Your task to perform on an android device: open chrome privacy settings Image 0: 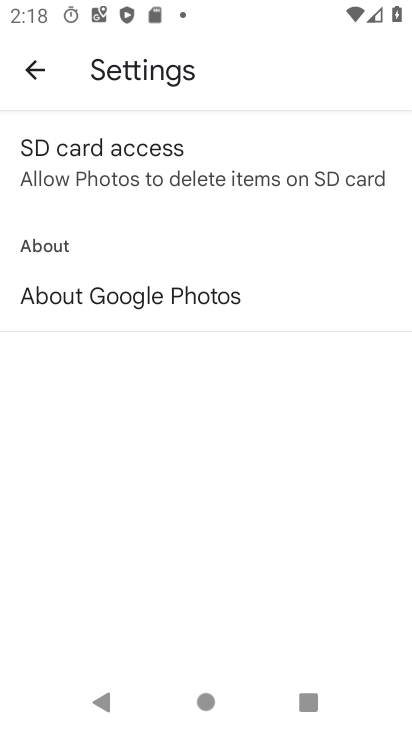
Step 0: press home button
Your task to perform on an android device: open chrome privacy settings Image 1: 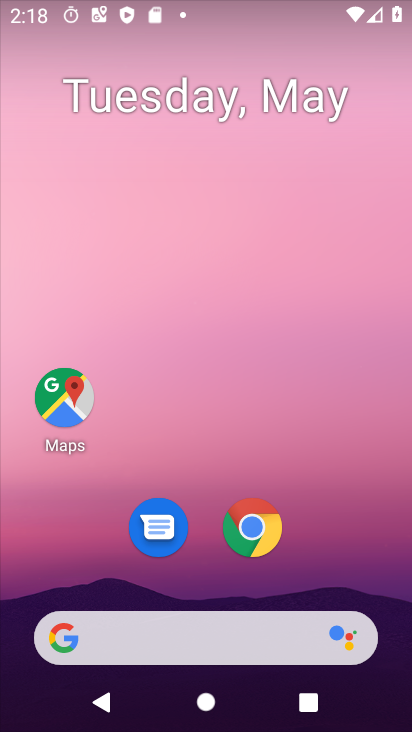
Step 1: drag from (252, 639) to (268, 259)
Your task to perform on an android device: open chrome privacy settings Image 2: 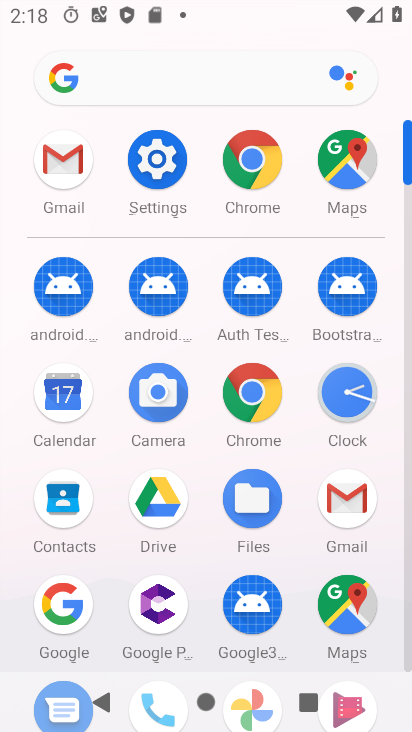
Step 2: click (152, 144)
Your task to perform on an android device: open chrome privacy settings Image 3: 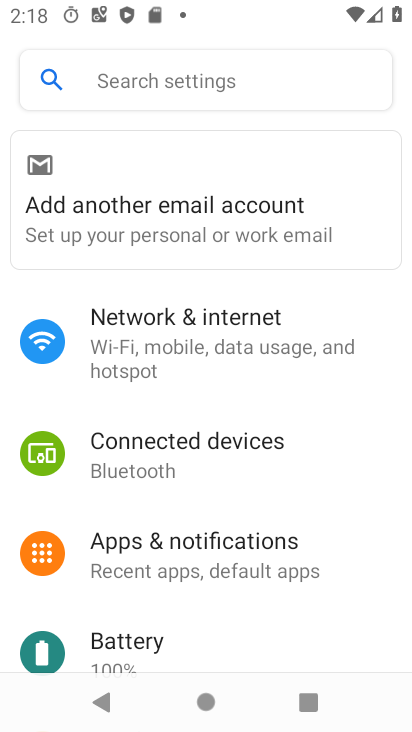
Step 3: drag from (176, 492) to (199, 283)
Your task to perform on an android device: open chrome privacy settings Image 4: 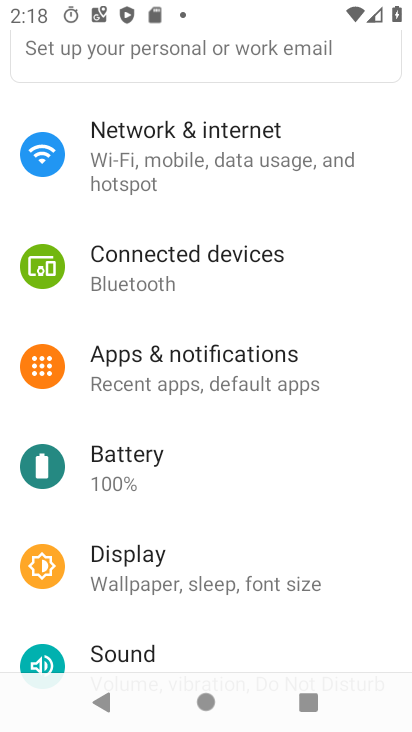
Step 4: drag from (176, 430) to (202, 195)
Your task to perform on an android device: open chrome privacy settings Image 5: 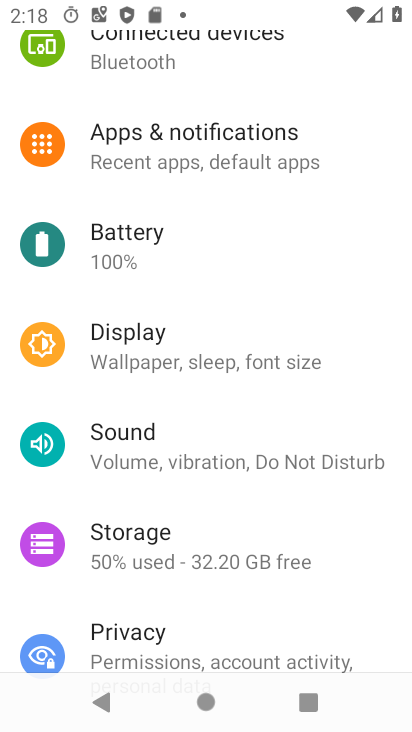
Step 5: click (145, 620)
Your task to perform on an android device: open chrome privacy settings Image 6: 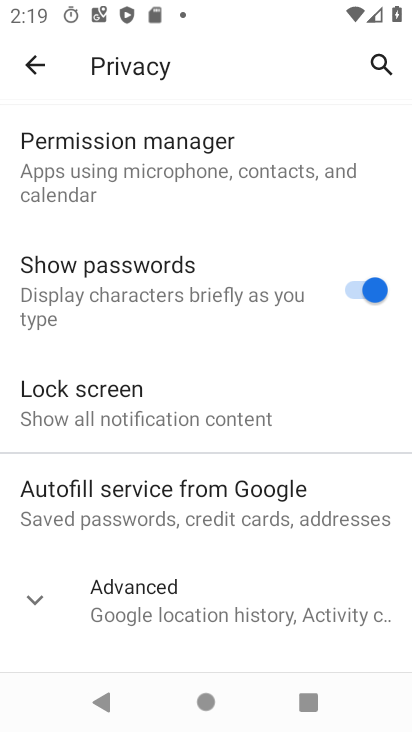
Step 6: task complete